Your task to perform on an android device: toggle notification dots Image 0: 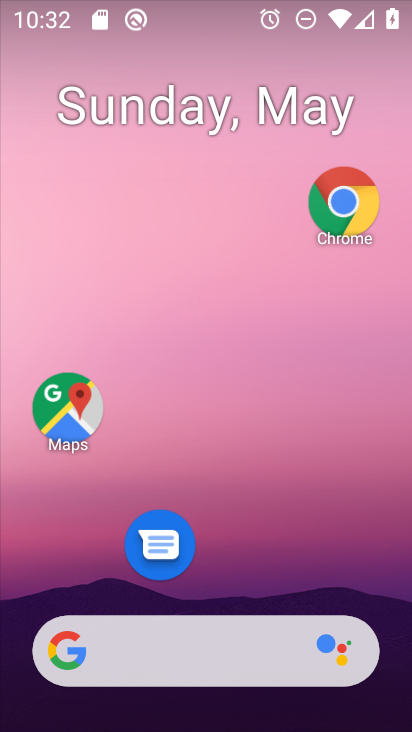
Step 0: drag from (297, 538) to (318, 107)
Your task to perform on an android device: toggle notification dots Image 1: 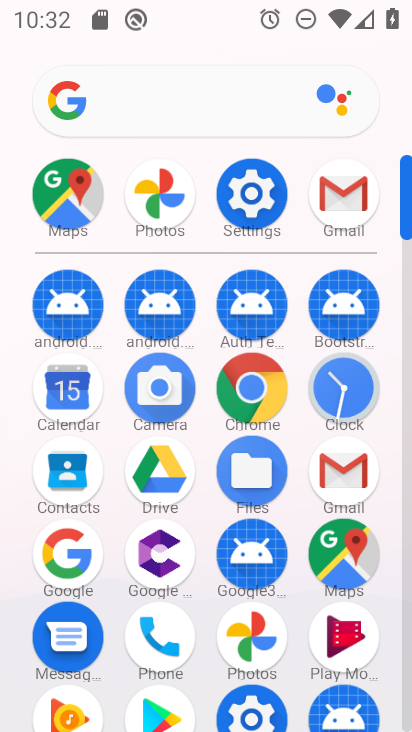
Step 1: click (256, 192)
Your task to perform on an android device: toggle notification dots Image 2: 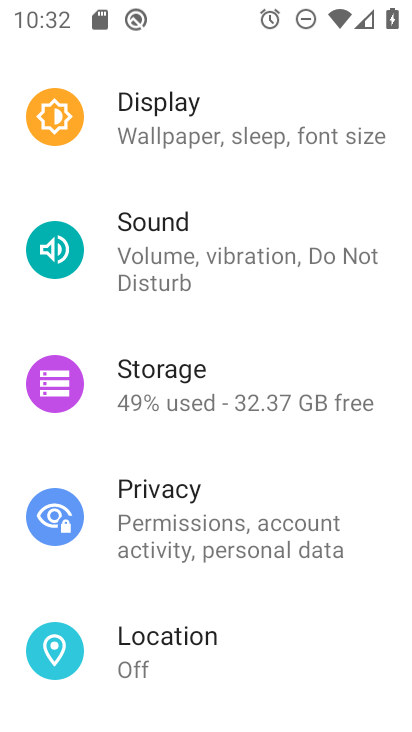
Step 2: drag from (256, 190) to (284, 385)
Your task to perform on an android device: toggle notification dots Image 3: 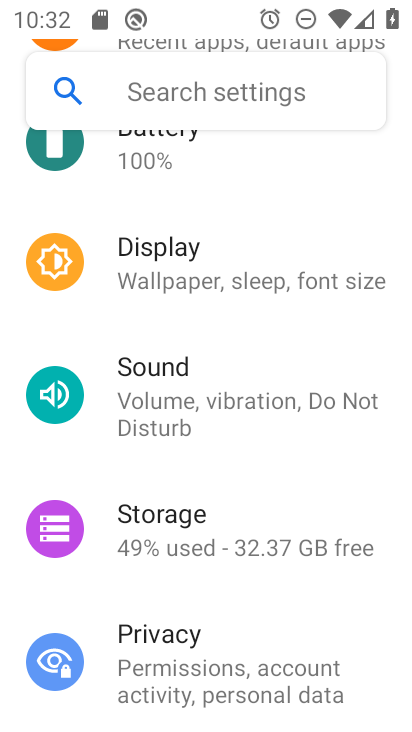
Step 3: drag from (267, 218) to (287, 481)
Your task to perform on an android device: toggle notification dots Image 4: 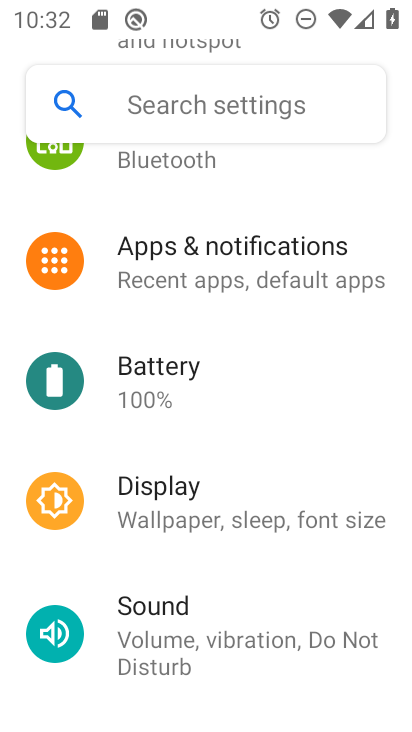
Step 4: click (304, 236)
Your task to perform on an android device: toggle notification dots Image 5: 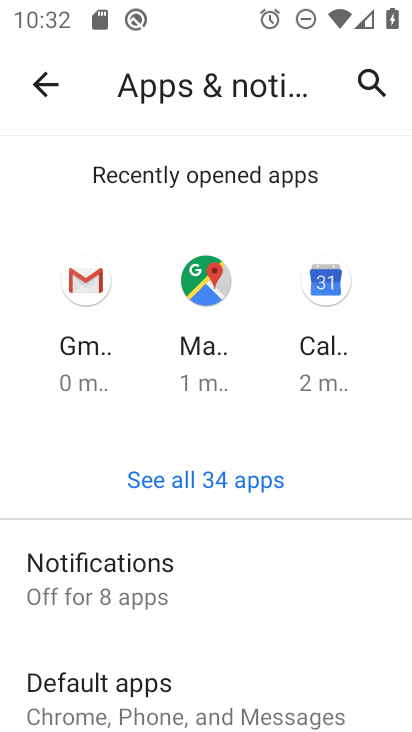
Step 5: drag from (267, 472) to (306, 122)
Your task to perform on an android device: toggle notification dots Image 6: 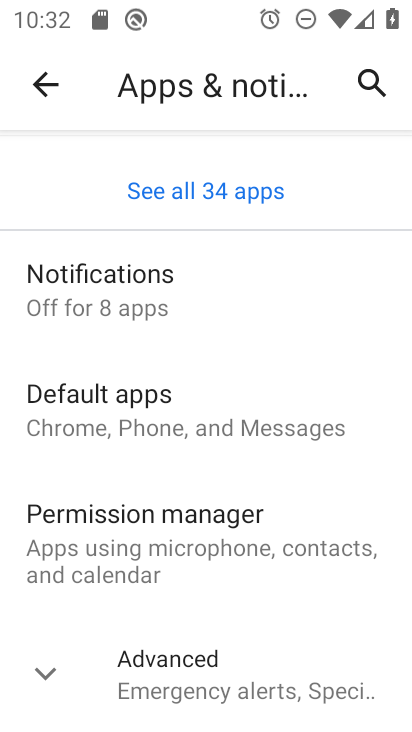
Step 6: click (221, 296)
Your task to perform on an android device: toggle notification dots Image 7: 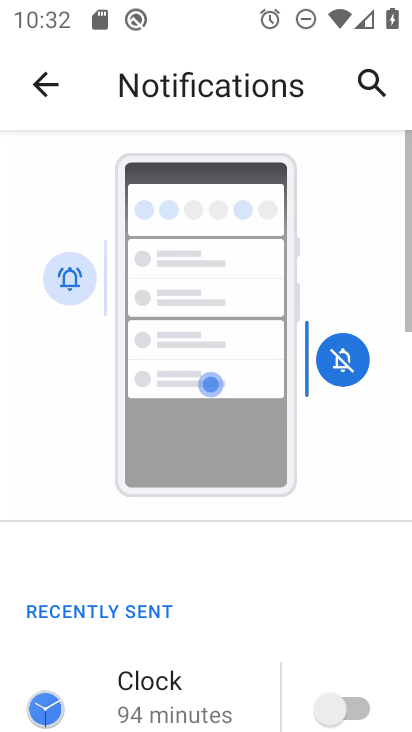
Step 7: drag from (253, 517) to (318, 116)
Your task to perform on an android device: toggle notification dots Image 8: 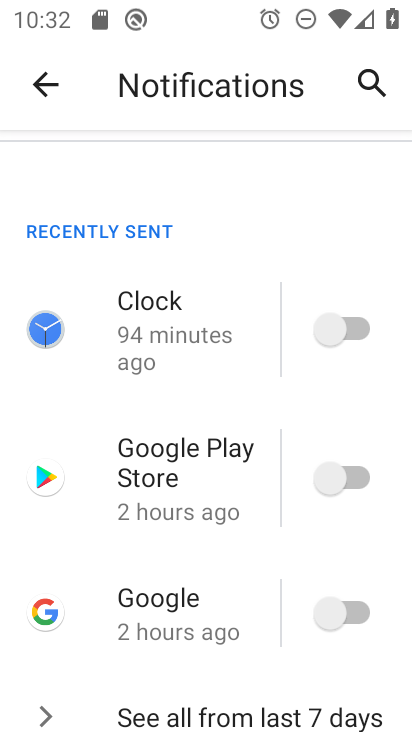
Step 8: drag from (242, 523) to (282, 128)
Your task to perform on an android device: toggle notification dots Image 9: 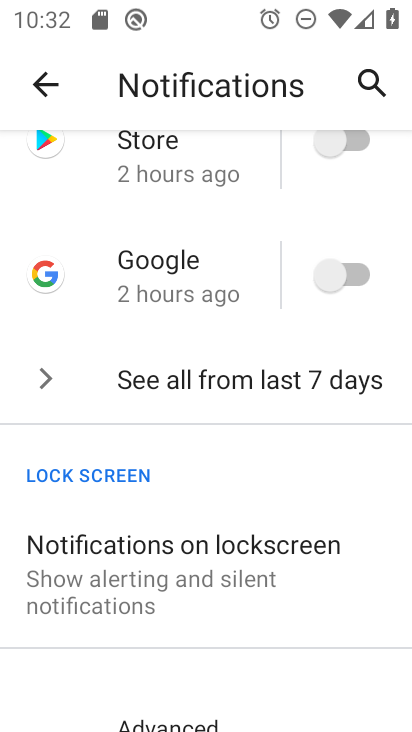
Step 9: drag from (232, 593) to (309, 313)
Your task to perform on an android device: toggle notification dots Image 10: 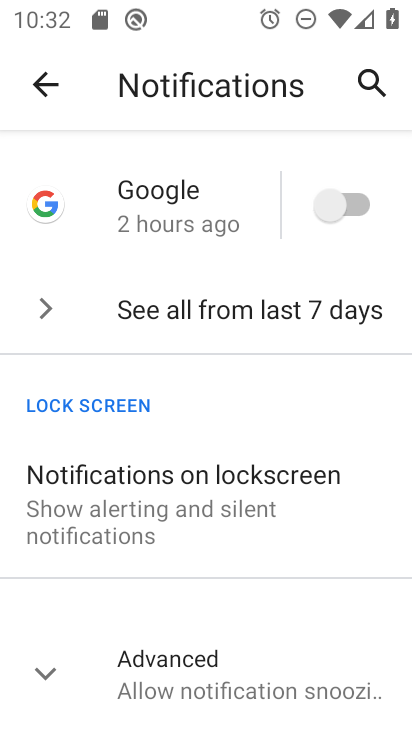
Step 10: click (259, 675)
Your task to perform on an android device: toggle notification dots Image 11: 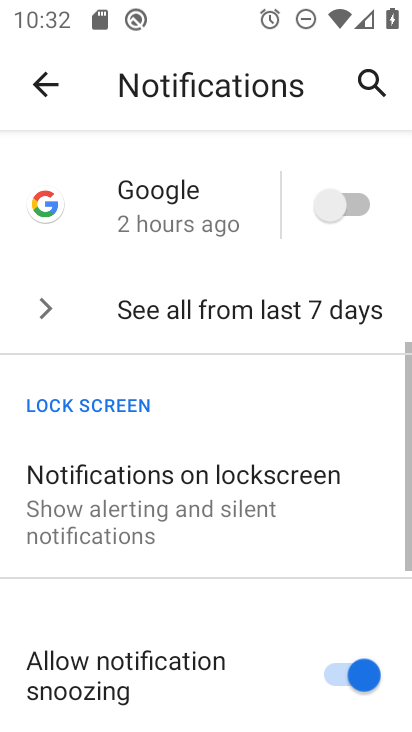
Step 11: drag from (248, 667) to (226, 227)
Your task to perform on an android device: toggle notification dots Image 12: 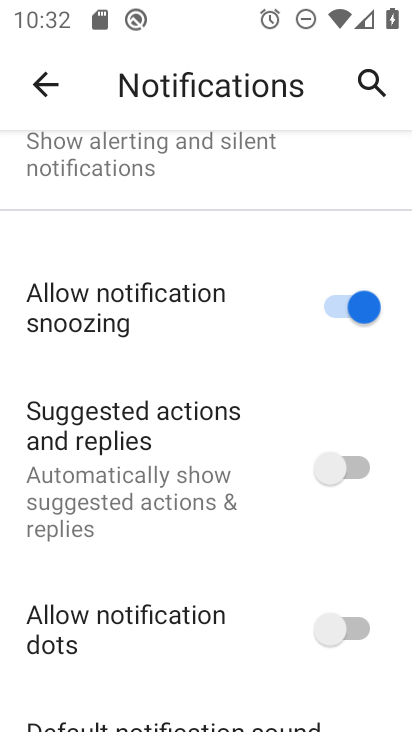
Step 12: click (344, 622)
Your task to perform on an android device: toggle notification dots Image 13: 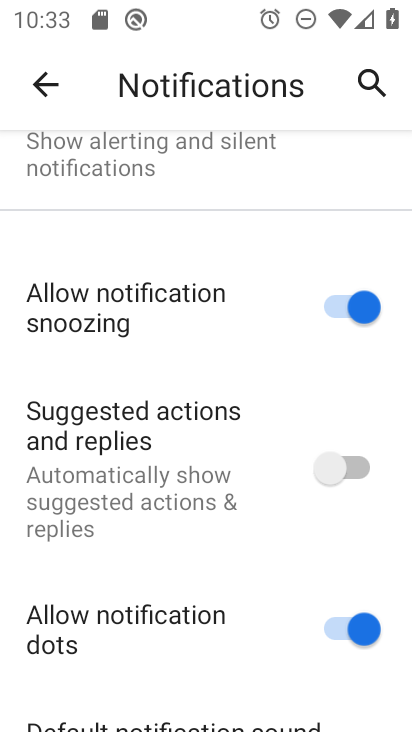
Step 13: task complete